Your task to perform on an android device: Turn off the flashlight Image 0: 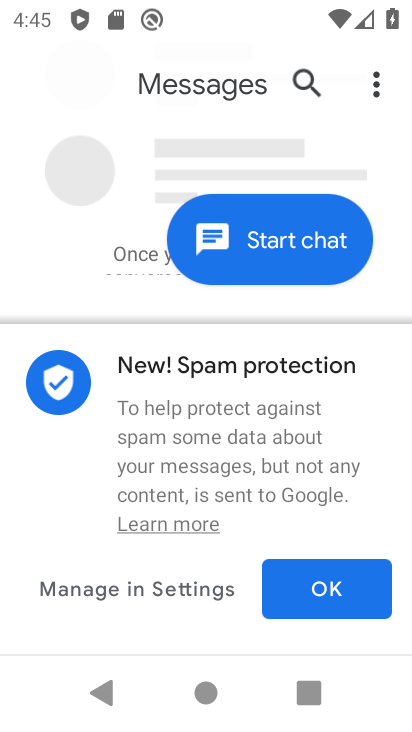
Step 0: press back button
Your task to perform on an android device: Turn off the flashlight Image 1: 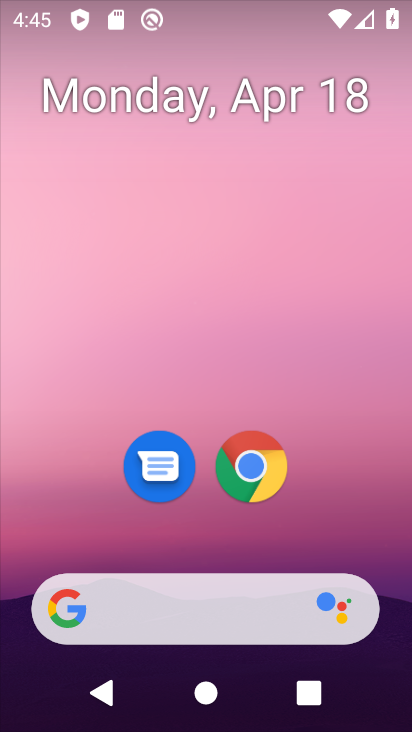
Step 1: drag from (354, 502) to (283, 14)
Your task to perform on an android device: Turn off the flashlight Image 2: 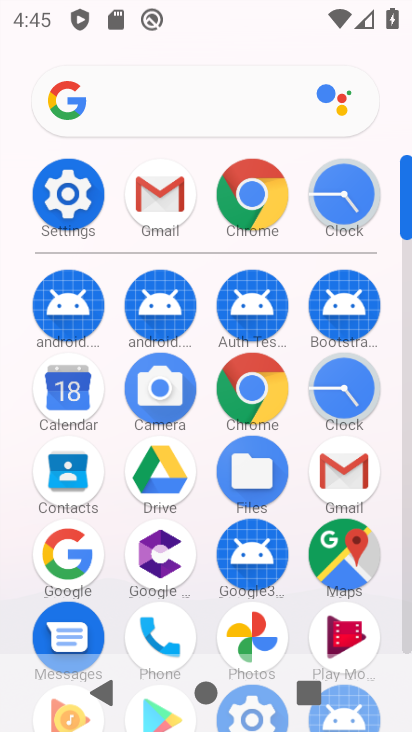
Step 2: click (72, 186)
Your task to perform on an android device: Turn off the flashlight Image 3: 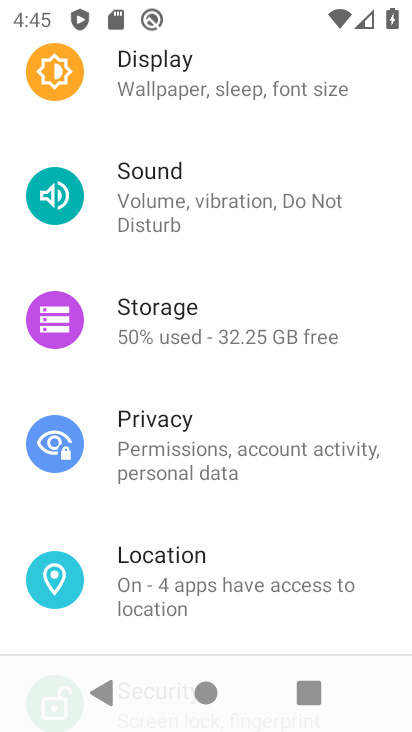
Step 3: drag from (289, 155) to (291, 541)
Your task to perform on an android device: Turn off the flashlight Image 4: 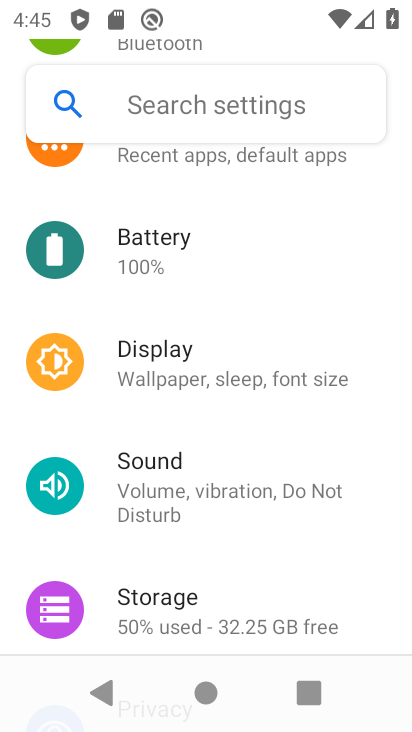
Step 4: drag from (276, 200) to (281, 556)
Your task to perform on an android device: Turn off the flashlight Image 5: 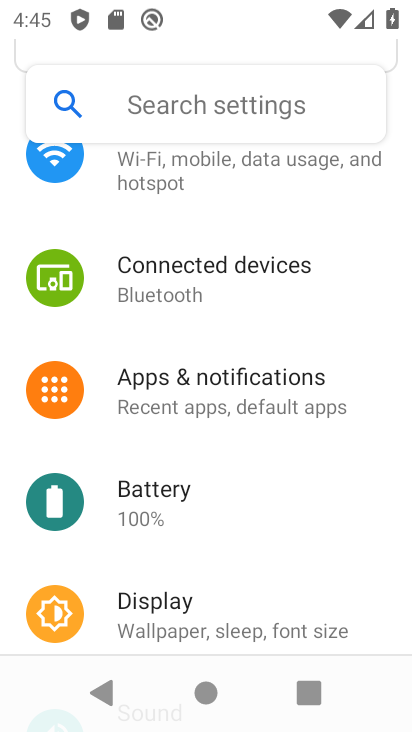
Step 5: drag from (288, 219) to (278, 585)
Your task to perform on an android device: Turn off the flashlight Image 6: 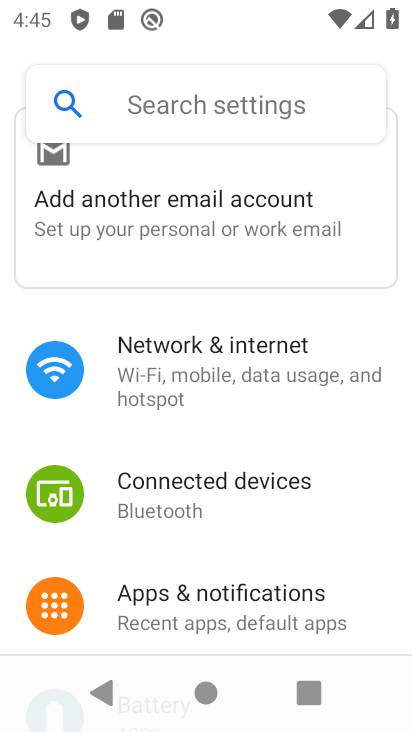
Step 6: click (265, 363)
Your task to perform on an android device: Turn off the flashlight Image 7: 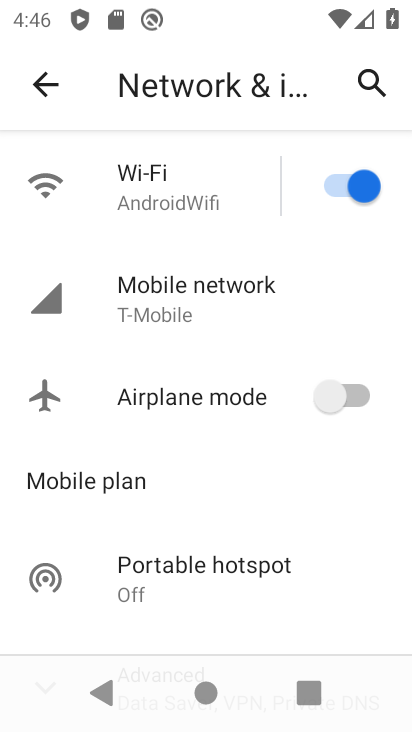
Step 7: drag from (190, 516) to (199, 183)
Your task to perform on an android device: Turn off the flashlight Image 8: 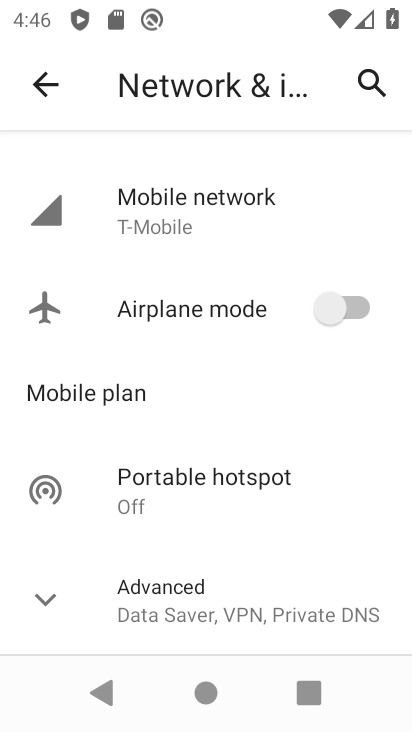
Step 8: drag from (221, 506) to (217, 130)
Your task to perform on an android device: Turn off the flashlight Image 9: 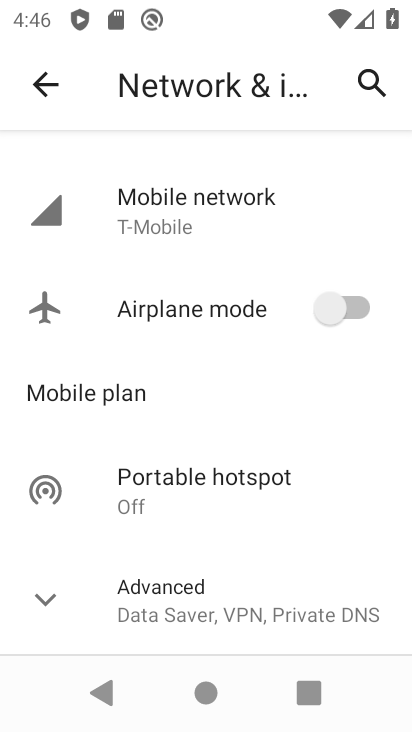
Step 9: drag from (303, 497) to (265, 188)
Your task to perform on an android device: Turn off the flashlight Image 10: 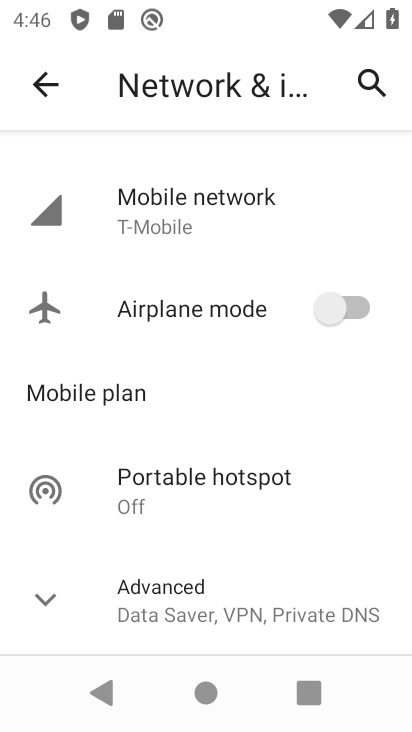
Step 10: click (50, 591)
Your task to perform on an android device: Turn off the flashlight Image 11: 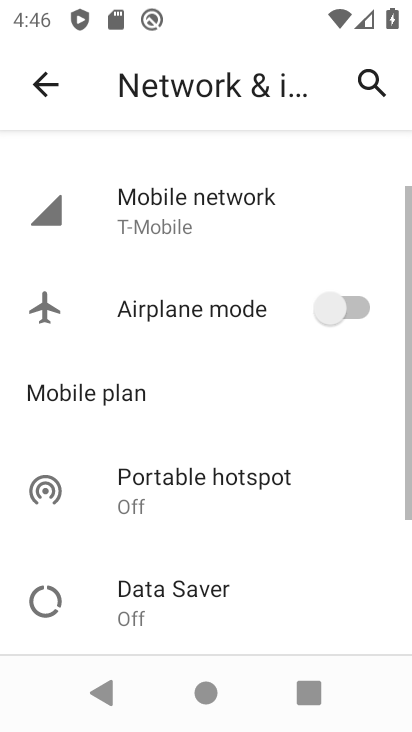
Step 11: drag from (232, 573) to (212, 169)
Your task to perform on an android device: Turn off the flashlight Image 12: 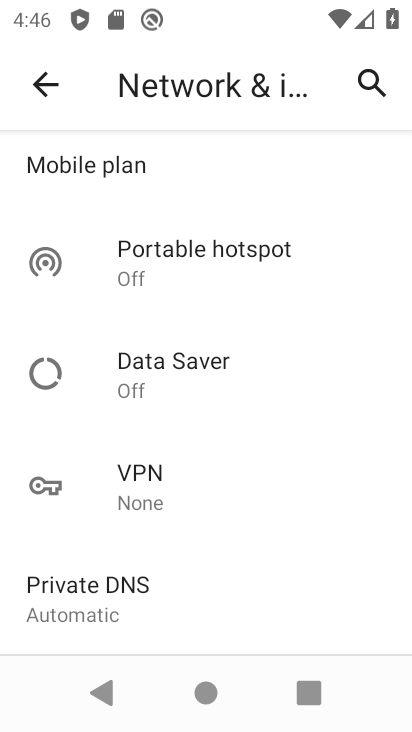
Step 12: click (56, 88)
Your task to perform on an android device: Turn off the flashlight Image 13: 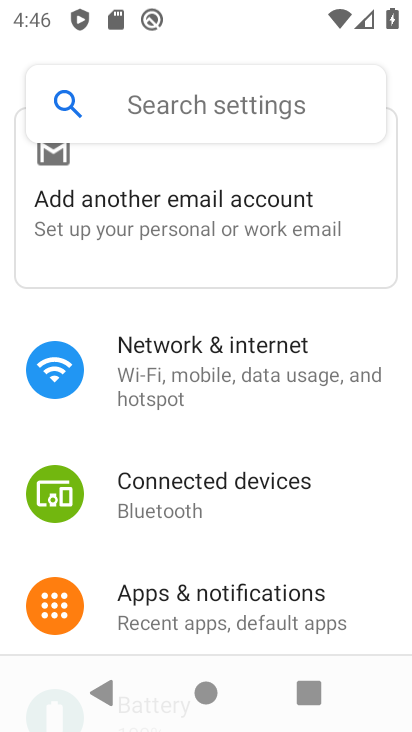
Step 13: task complete